Your task to perform on an android device: turn on improve location accuracy Image 0: 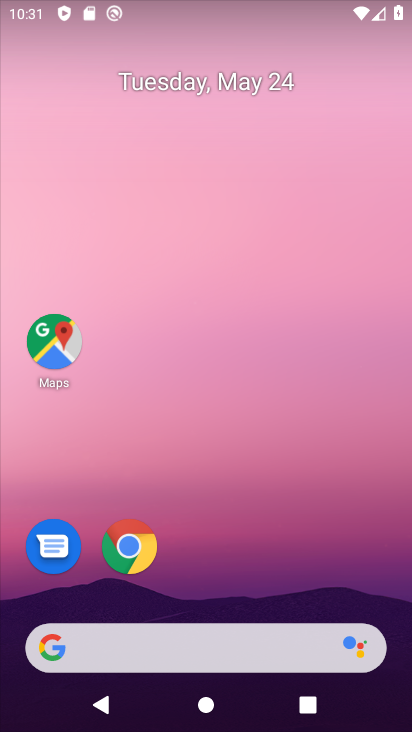
Step 0: drag from (256, 554) to (200, 161)
Your task to perform on an android device: turn on improve location accuracy Image 1: 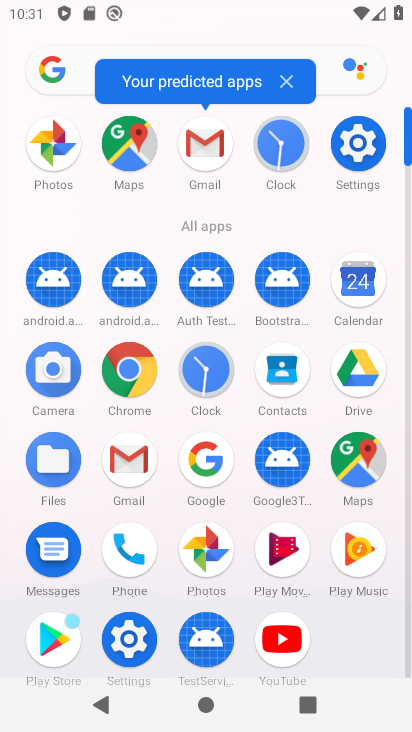
Step 1: click (132, 637)
Your task to perform on an android device: turn on improve location accuracy Image 2: 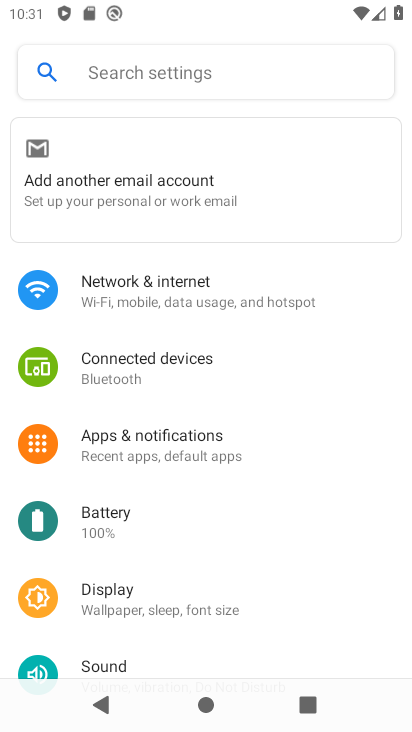
Step 2: drag from (176, 608) to (225, 271)
Your task to perform on an android device: turn on improve location accuracy Image 3: 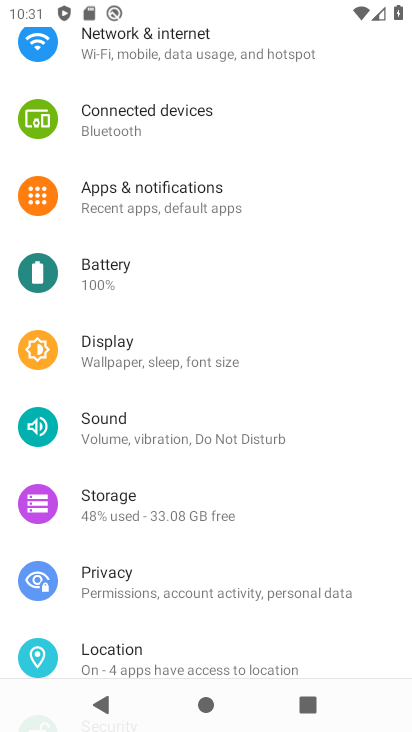
Step 3: click (145, 661)
Your task to perform on an android device: turn on improve location accuracy Image 4: 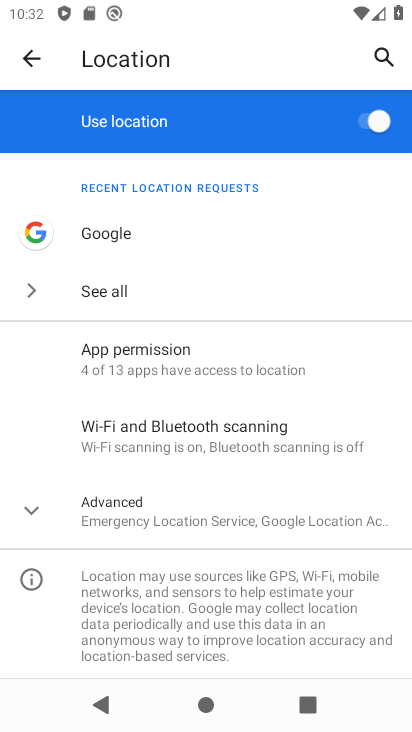
Step 4: click (28, 515)
Your task to perform on an android device: turn on improve location accuracy Image 5: 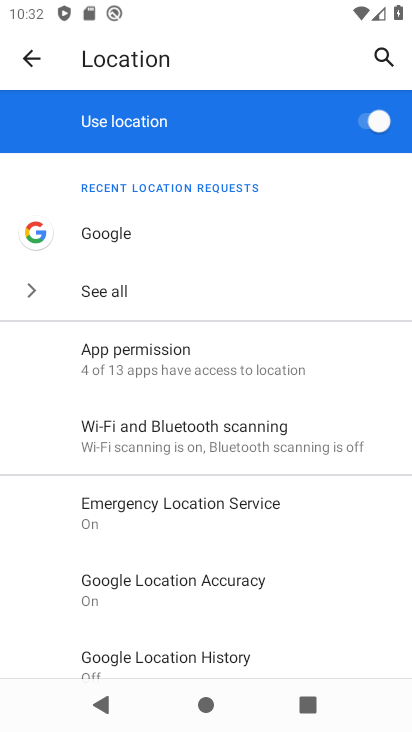
Step 5: click (222, 583)
Your task to perform on an android device: turn on improve location accuracy Image 6: 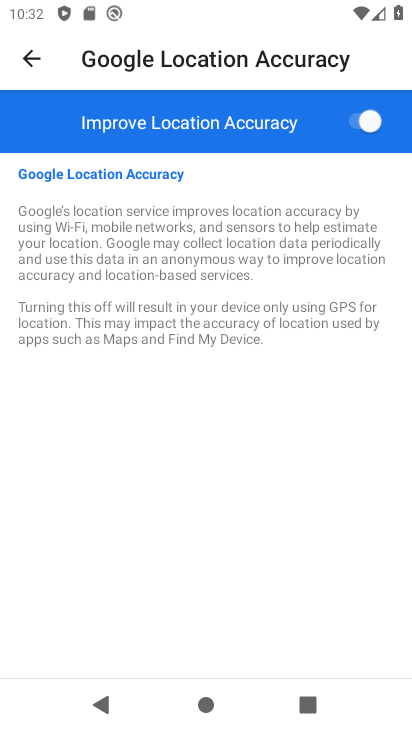
Step 6: task complete